Your task to perform on an android device: Go to Yahoo.com Image 0: 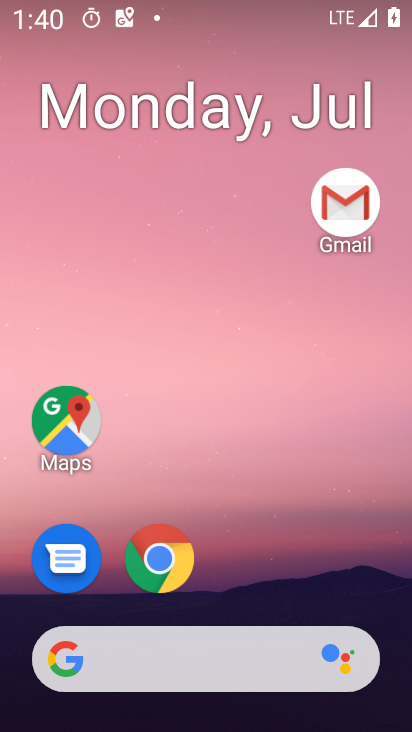
Step 0: drag from (298, 551) to (295, 171)
Your task to perform on an android device: Go to Yahoo.com Image 1: 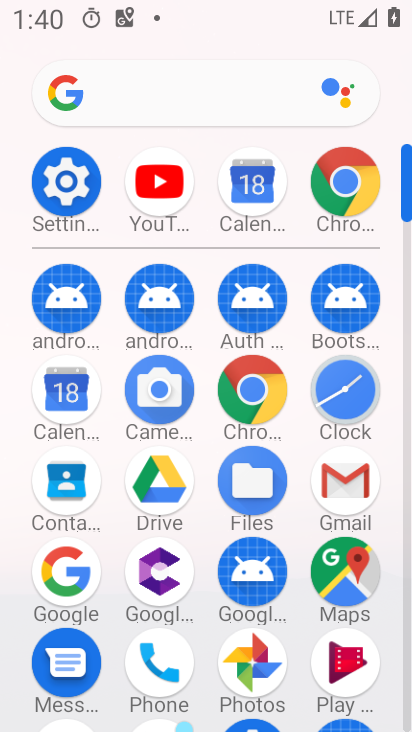
Step 1: click (245, 392)
Your task to perform on an android device: Go to Yahoo.com Image 2: 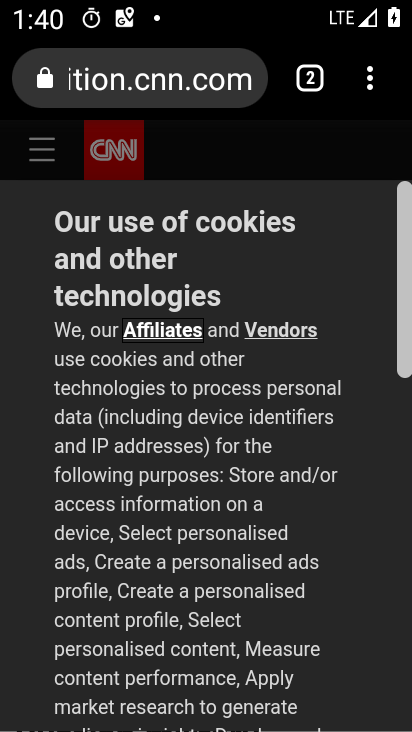
Step 2: click (201, 92)
Your task to perform on an android device: Go to Yahoo.com Image 3: 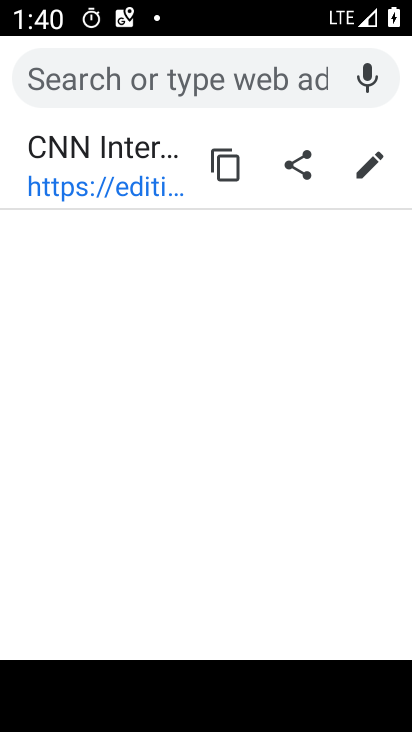
Step 3: type "yahoo.com"
Your task to perform on an android device: Go to Yahoo.com Image 4: 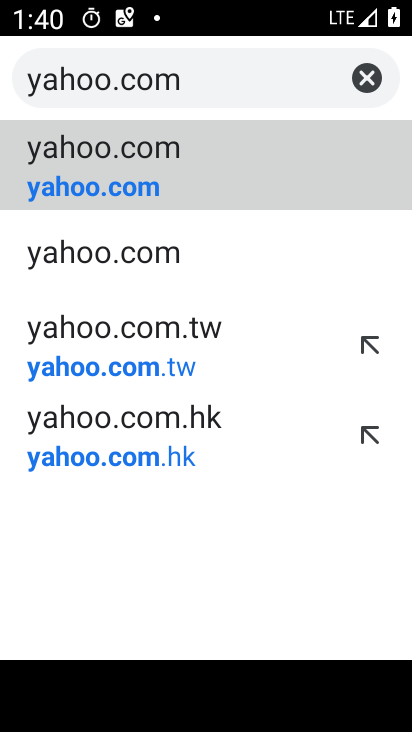
Step 4: click (240, 177)
Your task to perform on an android device: Go to Yahoo.com Image 5: 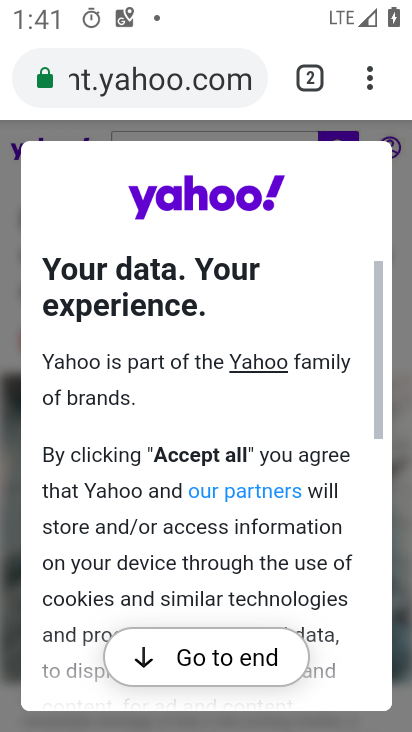
Step 5: task complete